Your task to perform on an android device: Go to Maps Image 0: 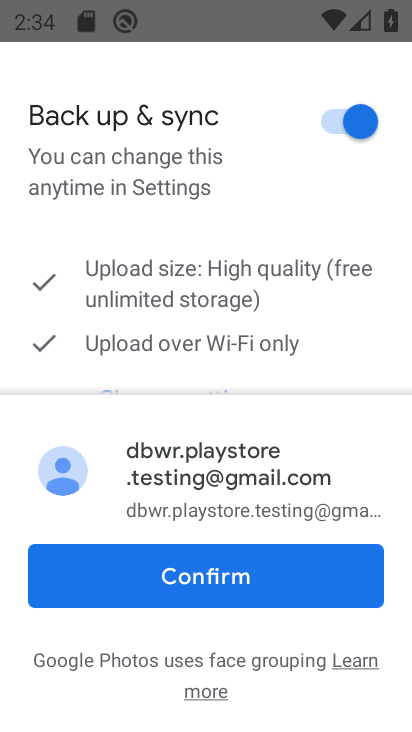
Step 0: press home button
Your task to perform on an android device: Go to Maps Image 1: 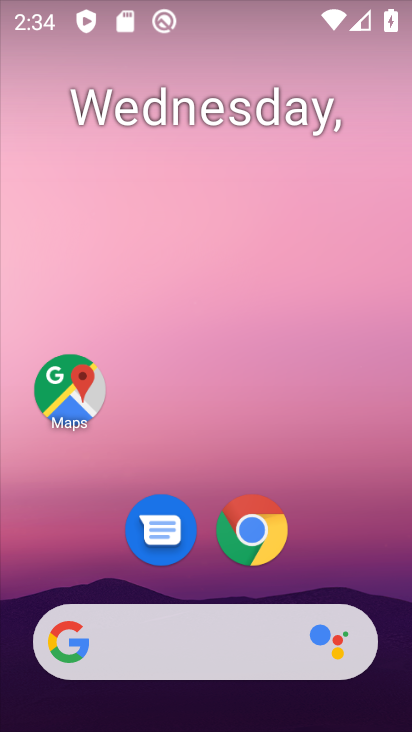
Step 1: click (69, 387)
Your task to perform on an android device: Go to Maps Image 2: 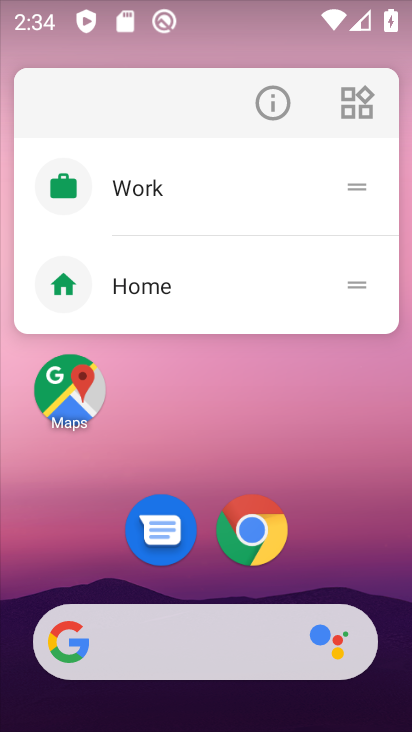
Step 2: click (75, 403)
Your task to perform on an android device: Go to Maps Image 3: 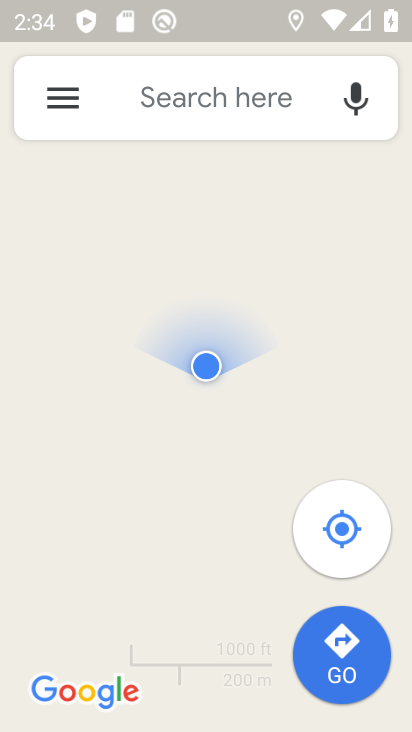
Step 3: task complete